Your task to perform on an android device: toggle wifi Image 0: 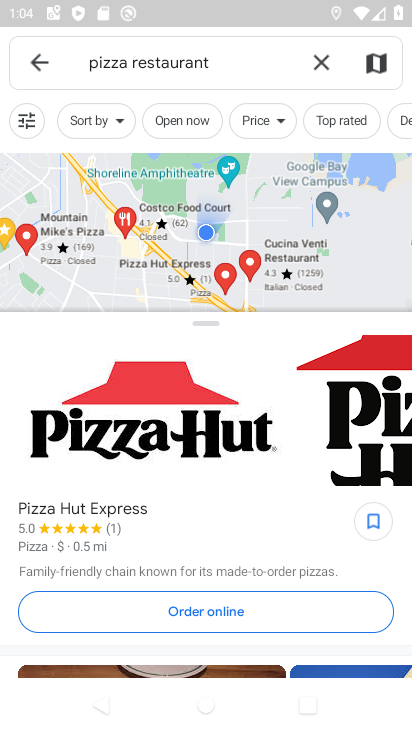
Step 0: press home button
Your task to perform on an android device: toggle wifi Image 1: 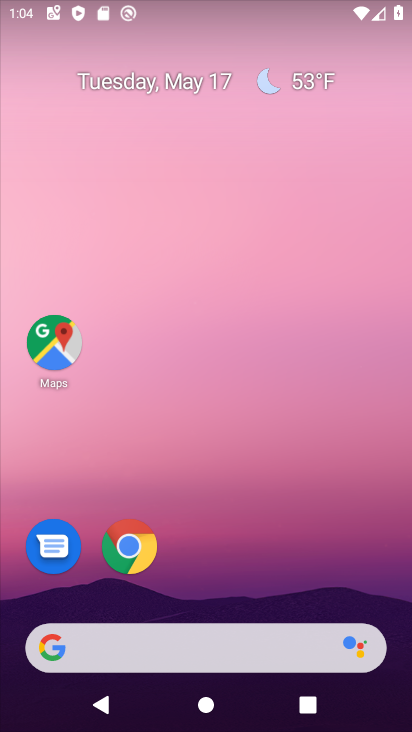
Step 1: drag from (220, 586) to (257, 149)
Your task to perform on an android device: toggle wifi Image 2: 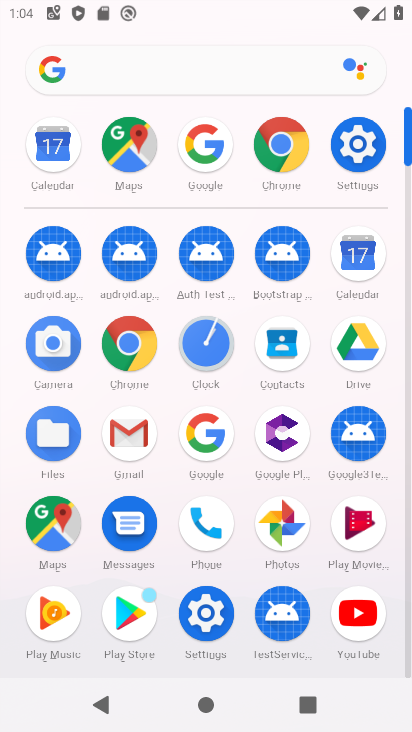
Step 2: click (346, 142)
Your task to perform on an android device: toggle wifi Image 3: 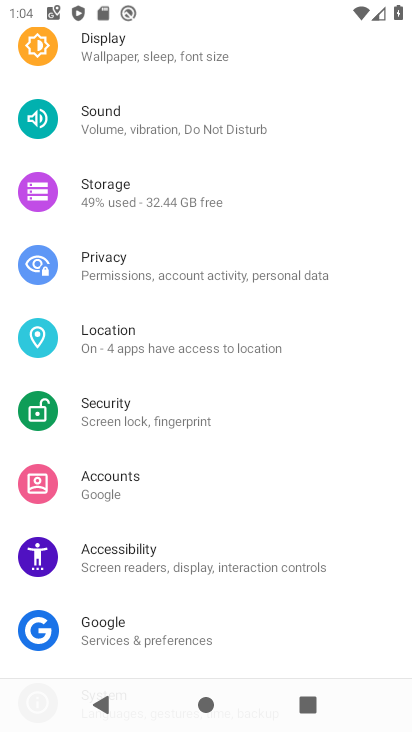
Step 3: drag from (227, 164) to (225, 413)
Your task to perform on an android device: toggle wifi Image 4: 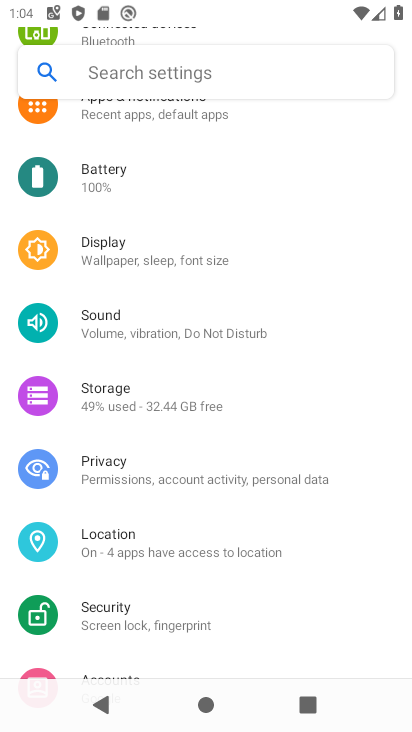
Step 4: drag from (192, 196) to (210, 328)
Your task to perform on an android device: toggle wifi Image 5: 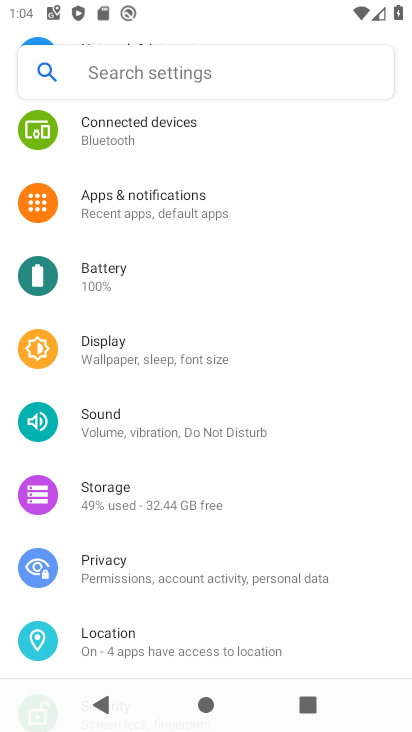
Step 5: drag from (162, 175) to (151, 398)
Your task to perform on an android device: toggle wifi Image 6: 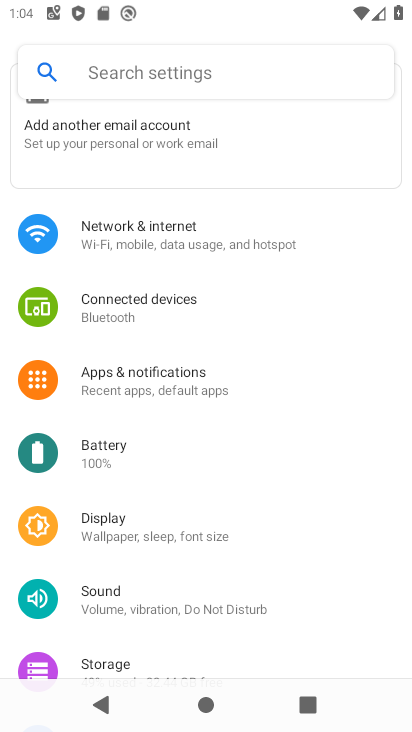
Step 6: click (151, 252)
Your task to perform on an android device: toggle wifi Image 7: 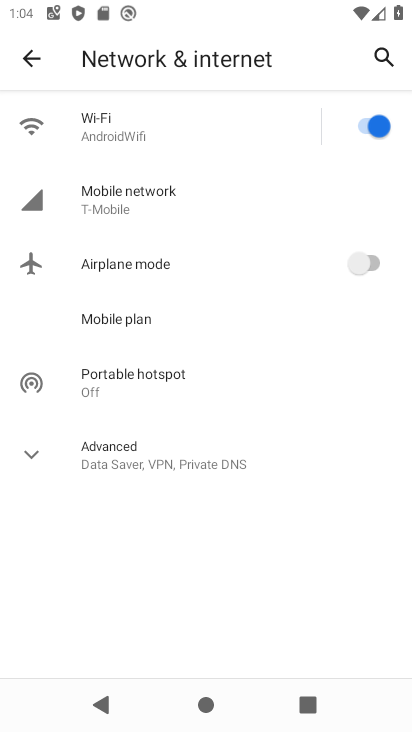
Step 7: click (356, 129)
Your task to perform on an android device: toggle wifi Image 8: 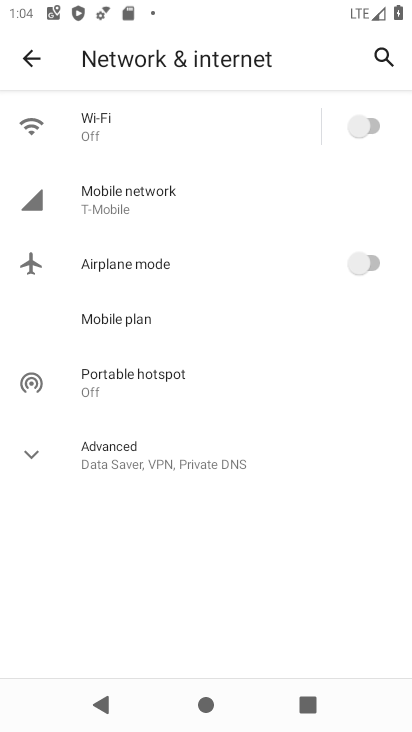
Step 8: task complete